Your task to perform on an android device: uninstall "Reddit" Image 0: 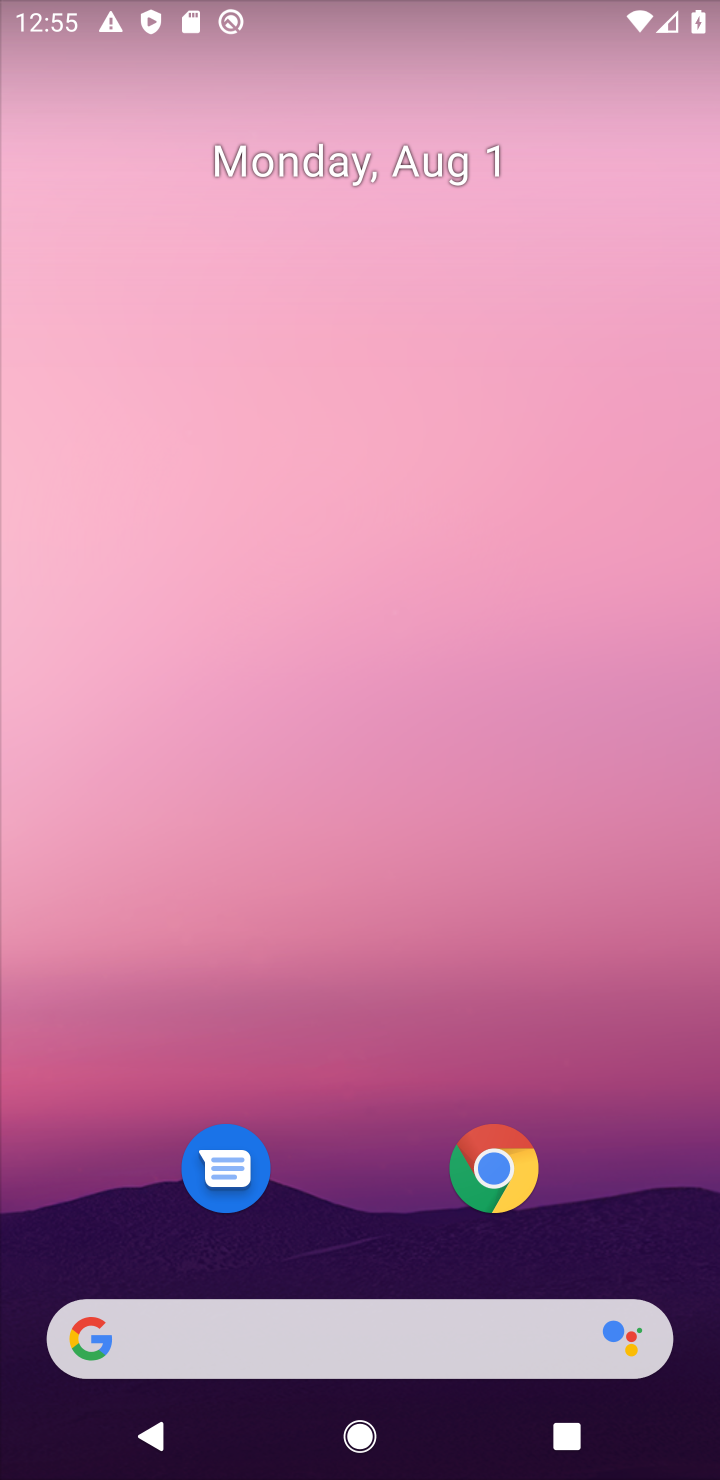
Step 0: drag from (358, 1195) to (300, 133)
Your task to perform on an android device: uninstall "Reddit" Image 1: 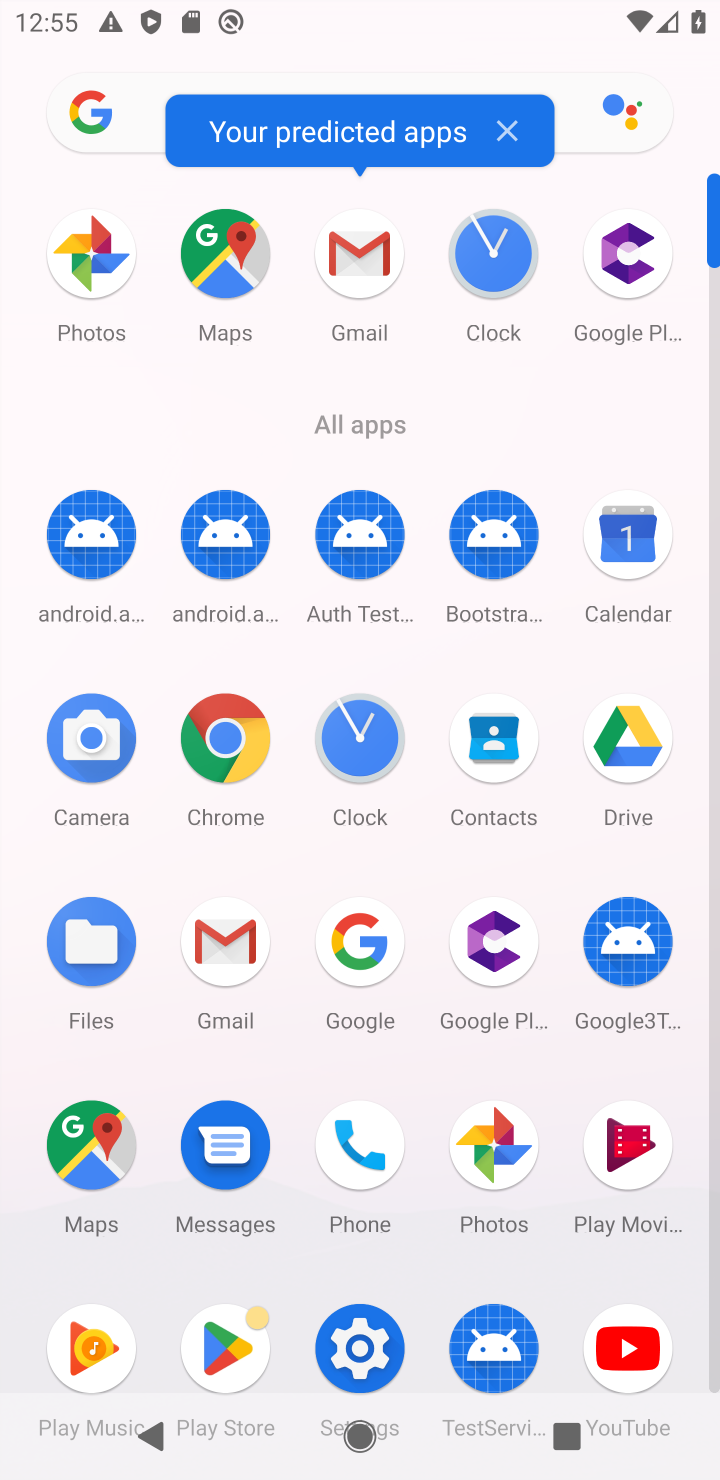
Step 1: click (221, 1327)
Your task to perform on an android device: uninstall "Reddit" Image 2: 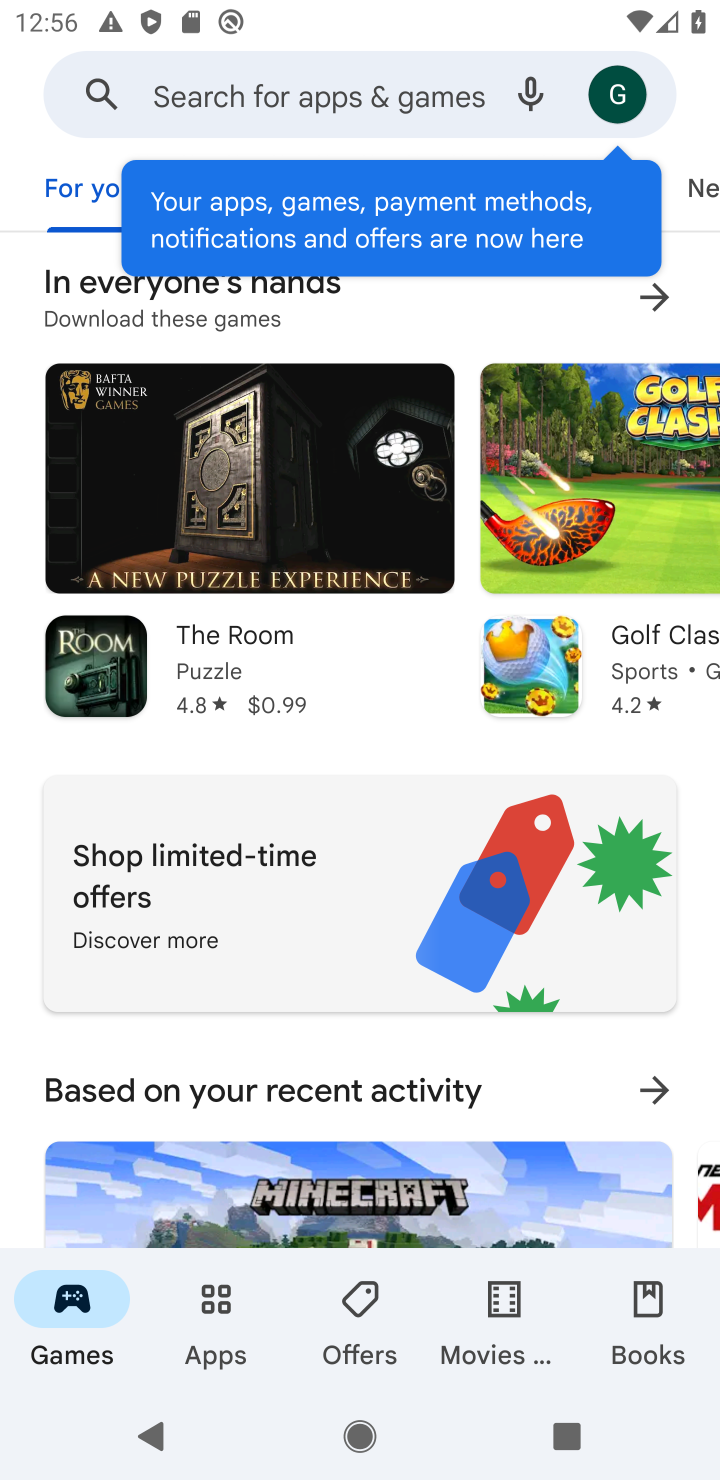
Step 2: click (312, 89)
Your task to perform on an android device: uninstall "Reddit" Image 3: 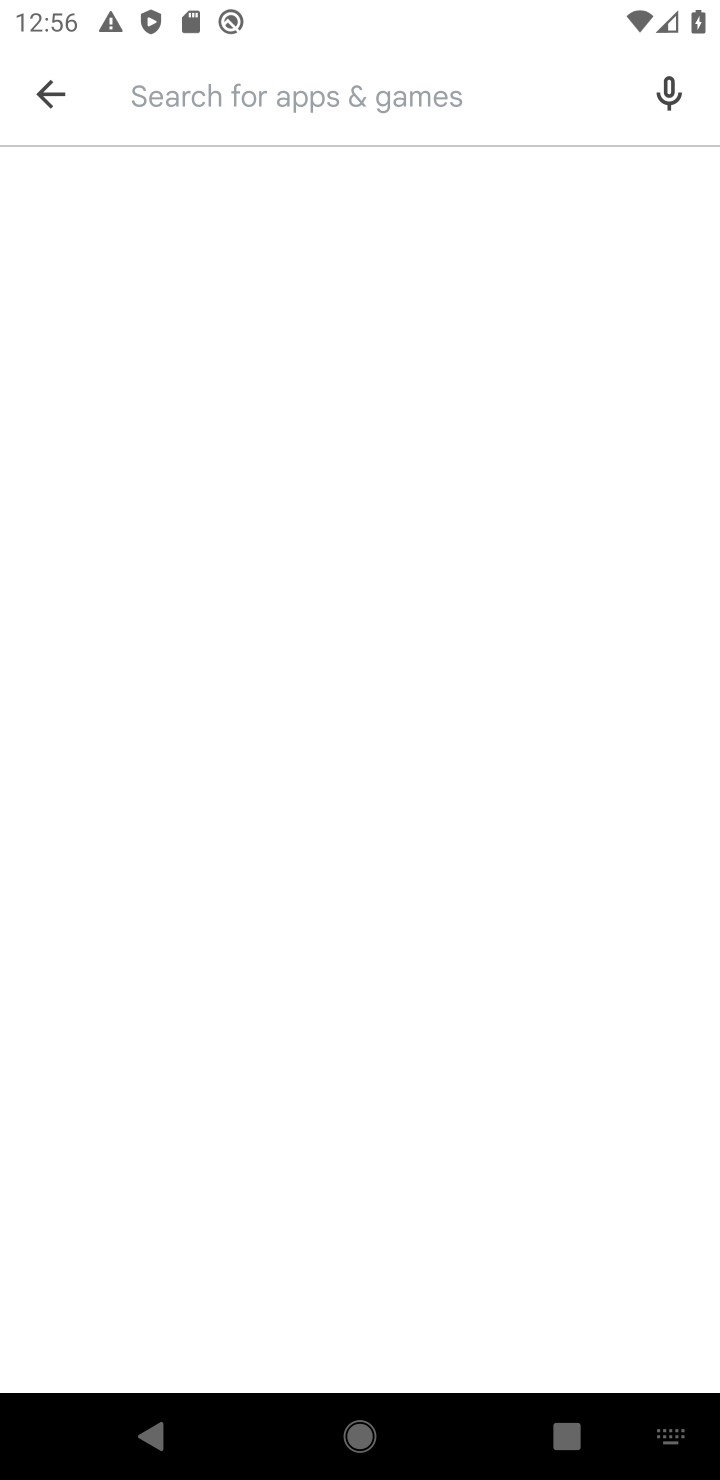
Step 3: type "Reddit"
Your task to perform on an android device: uninstall "Reddit" Image 4: 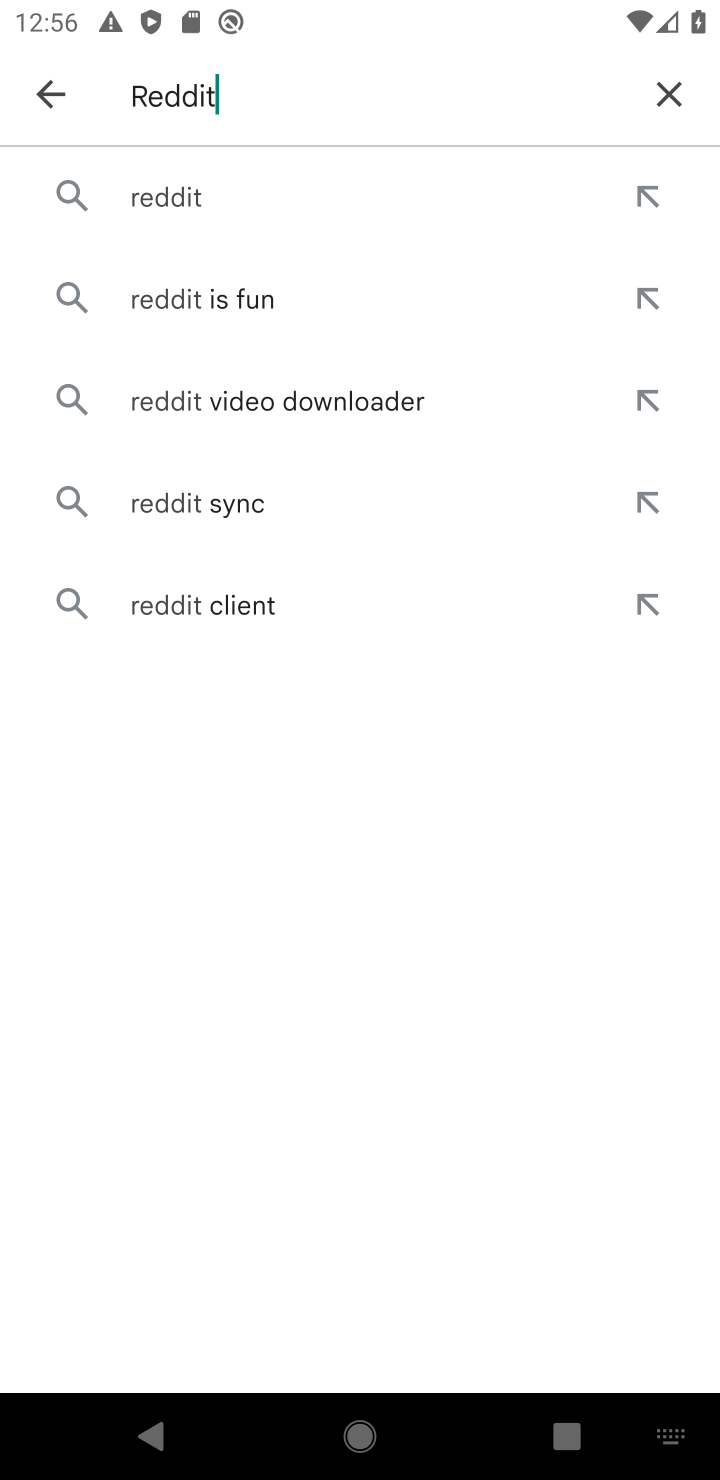
Step 4: click (155, 181)
Your task to perform on an android device: uninstall "Reddit" Image 5: 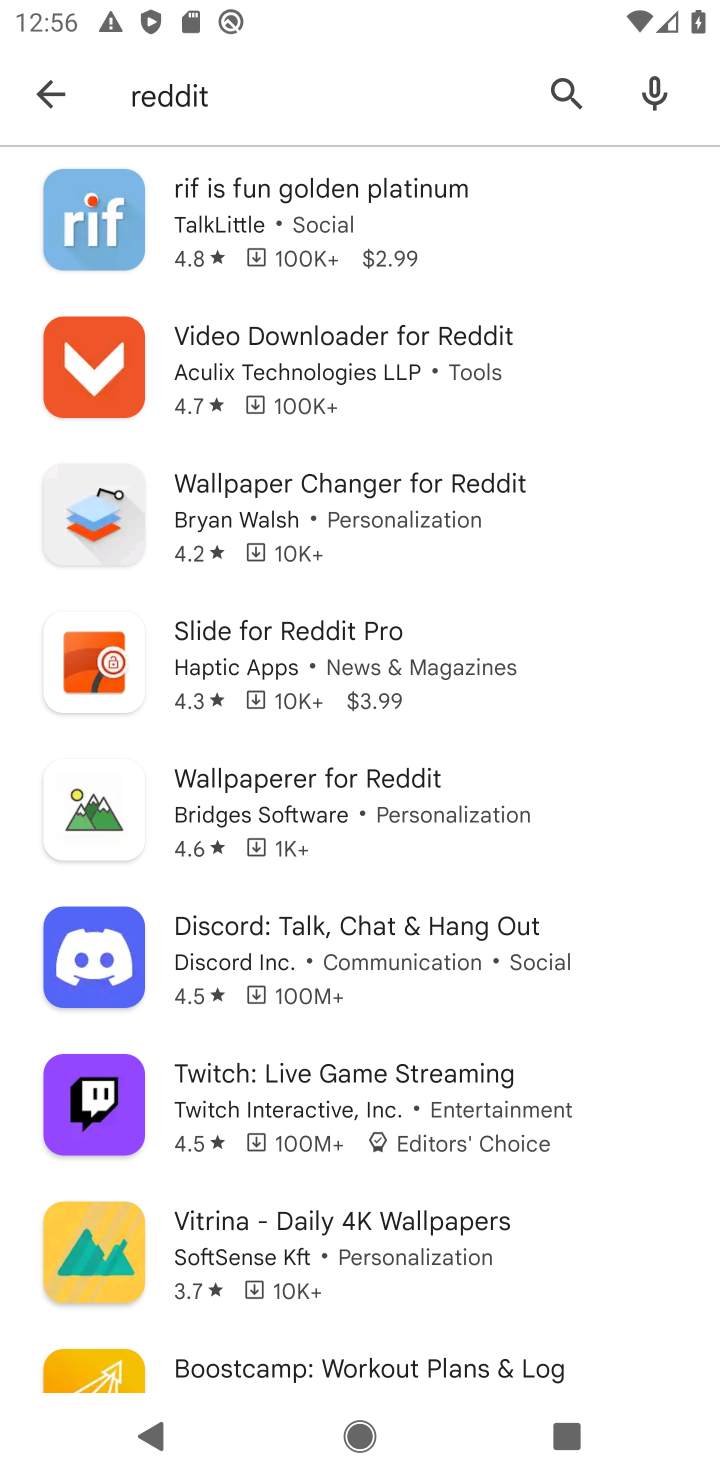
Step 5: task complete